Your task to perform on an android device: read, delete, or share a saved page in the chrome app Image 0: 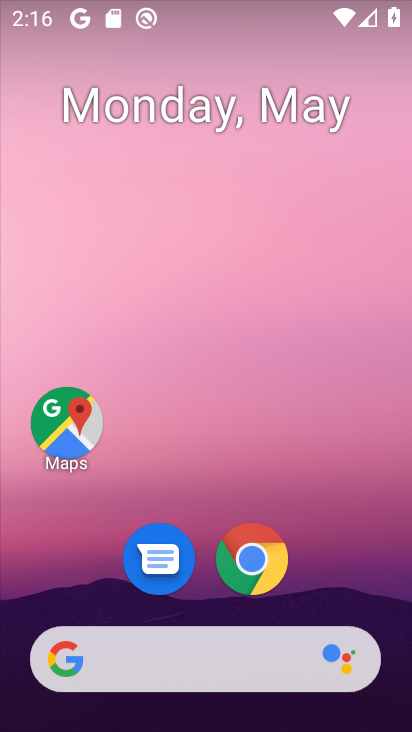
Step 0: click (259, 569)
Your task to perform on an android device: read, delete, or share a saved page in the chrome app Image 1: 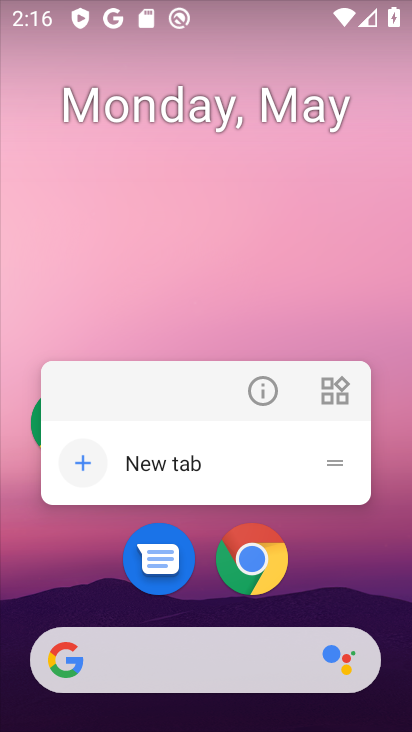
Step 1: click (248, 547)
Your task to perform on an android device: read, delete, or share a saved page in the chrome app Image 2: 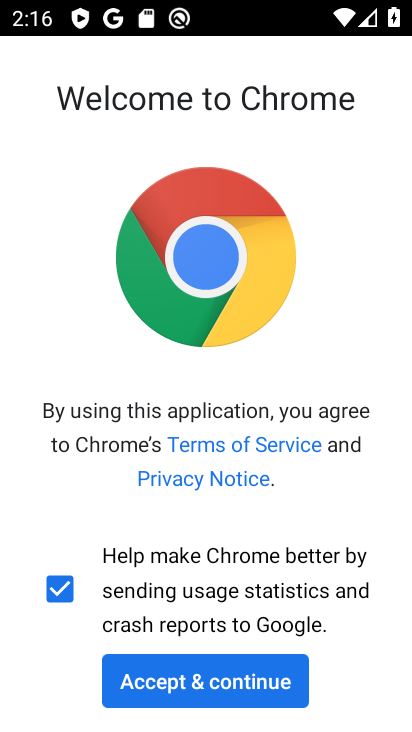
Step 2: click (229, 686)
Your task to perform on an android device: read, delete, or share a saved page in the chrome app Image 3: 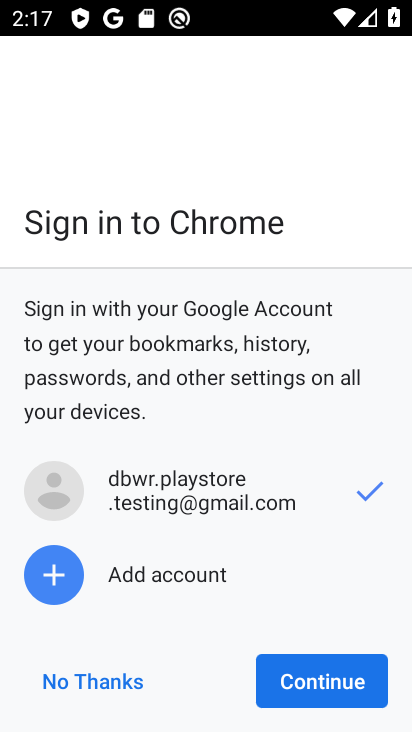
Step 3: click (294, 663)
Your task to perform on an android device: read, delete, or share a saved page in the chrome app Image 4: 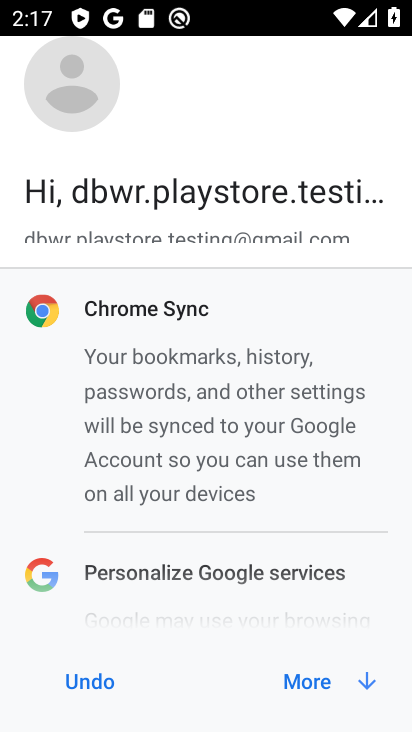
Step 4: click (306, 682)
Your task to perform on an android device: read, delete, or share a saved page in the chrome app Image 5: 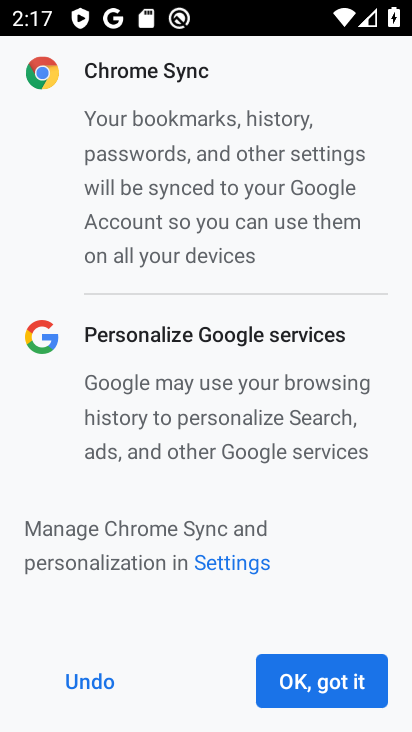
Step 5: click (326, 681)
Your task to perform on an android device: read, delete, or share a saved page in the chrome app Image 6: 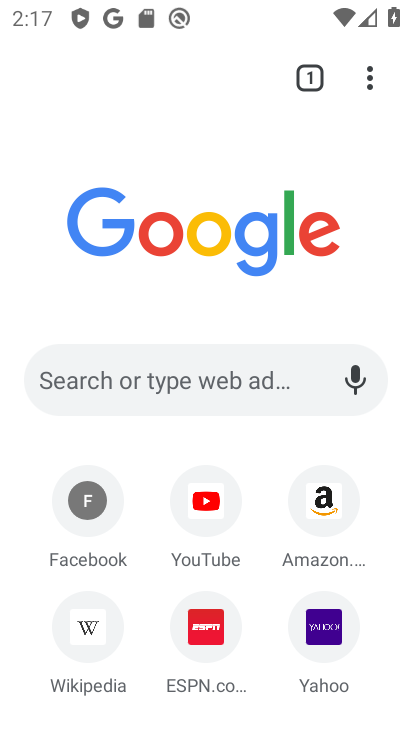
Step 6: click (372, 82)
Your task to perform on an android device: read, delete, or share a saved page in the chrome app Image 7: 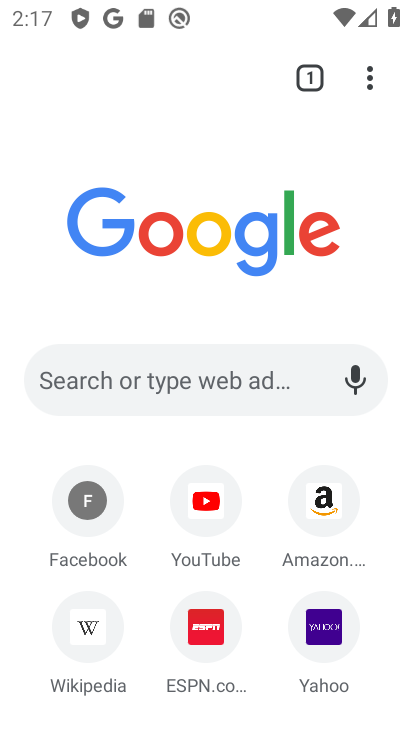
Step 7: click (373, 80)
Your task to perform on an android device: read, delete, or share a saved page in the chrome app Image 8: 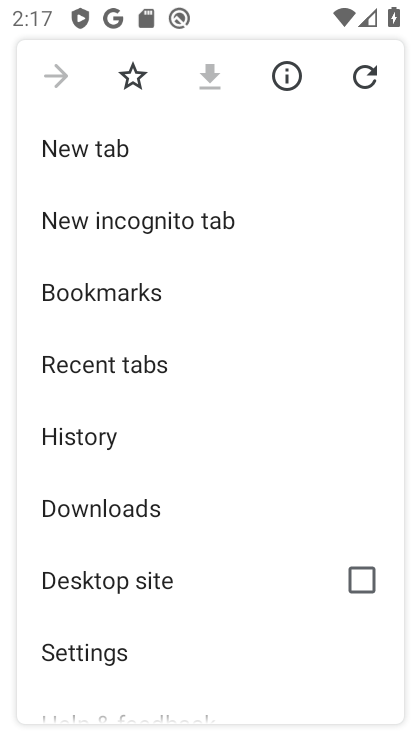
Step 8: click (84, 508)
Your task to perform on an android device: read, delete, or share a saved page in the chrome app Image 9: 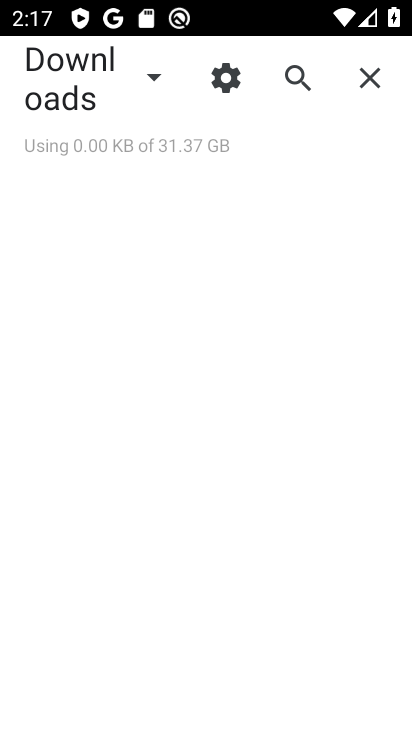
Step 9: click (155, 77)
Your task to perform on an android device: read, delete, or share a saved page in the chrome app Image 10: 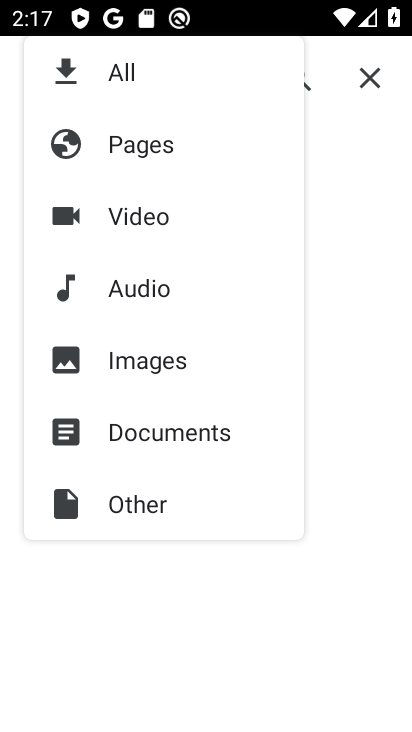
Step 10: click (153, 158)
Your task to perform on an android device: read, delete, or share a saved page in the chrome app Image 11: 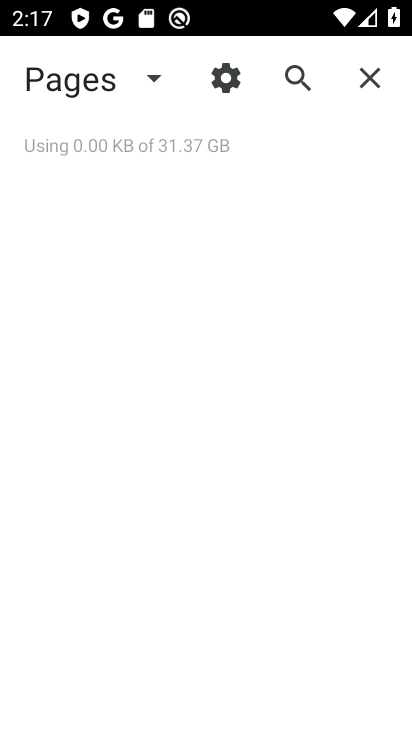
Step 11: task complete